Your task to perform on an android device: delete location history Image 0: 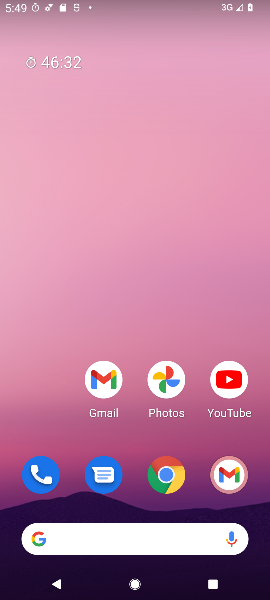
Step 0: press home button
Your task to perform on an android device: delete location history Image 1: 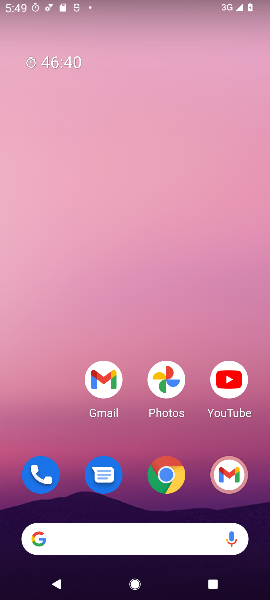
Step 1: drag from (70, 440) to (76, 173)
Your task to perform on an android device: delete location history Image 2: 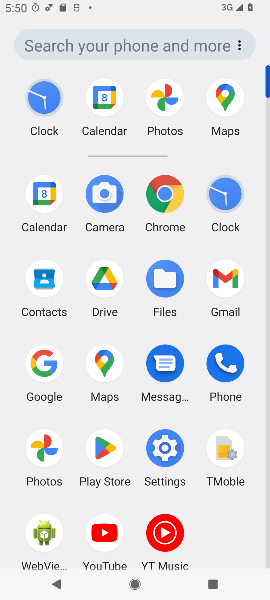
Step 2: click (162, 452)
Your task to perform on an android device: delete location history Image 3: 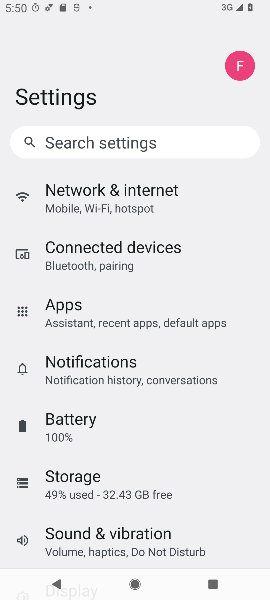
Step 3: press back button
Your task to perform on an android device: delete location history Image 4: 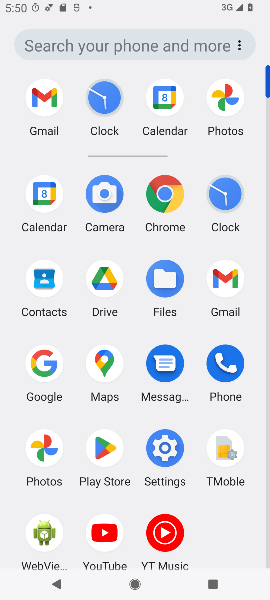
Step 4: click (104, 367)
Your task to perform on an android device: delete location history Image 5: 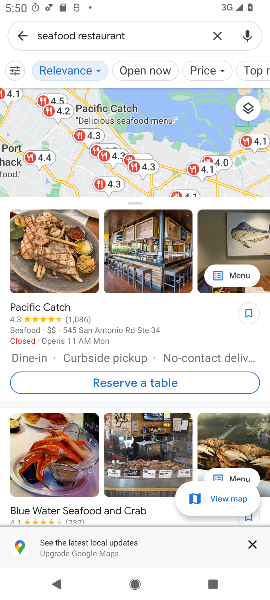
Step 5: press back button
Your task to perform on an android device: delete location history Image 6: 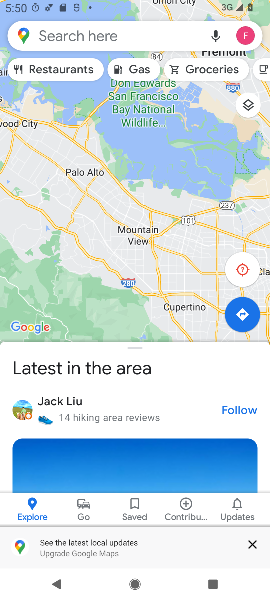
Step 6: click (245, 35)
Your task to perform on an android device: delete location history Image 7: 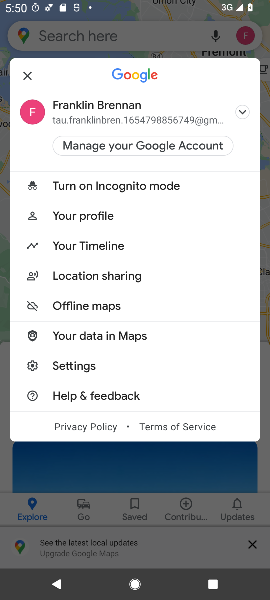
Step 7: click (104, 248)
Your task to perform on an android device: delete location history Image 8: 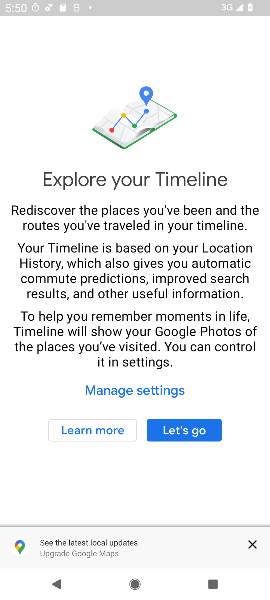
Step 8: click (170, 426)
Your task to perform on an android device: delete location history Image 9: 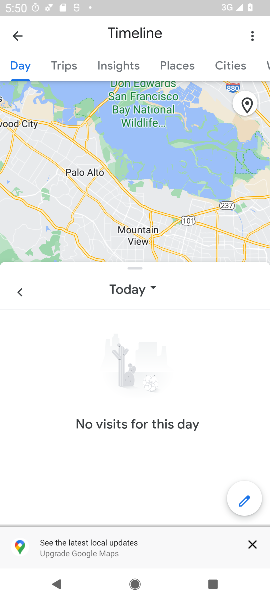
Step 9: click (253, 38)
Your task to perform on an android device: delete location history Image 10: 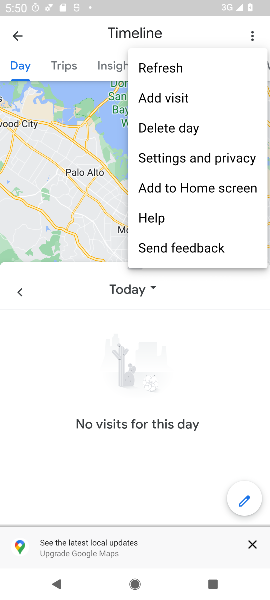
Step 10: click (219, 153)
Your task to perform on an android device: delete location history Image 11: 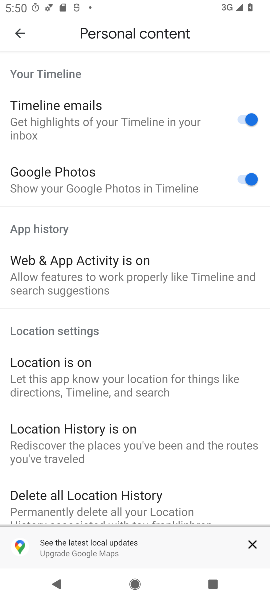
Step 11: drag from (195, 390) to (202, 324)
Your task to perform on an android device: delete location history Image 12: 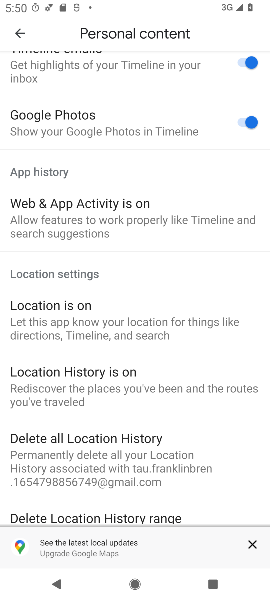
Step 12: drag from (195, 436) to (205, 343)
Your task to perform on an android device: delete location history Image 13: 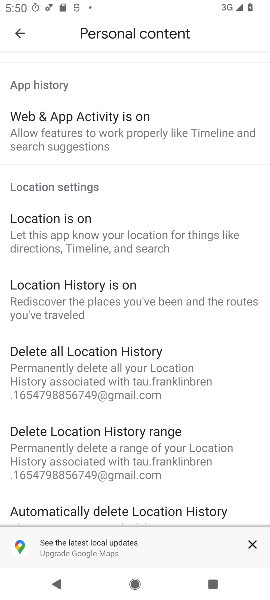
Step 13: click (137, 383)
Your task to perform on an android device: delete location history Image 14: 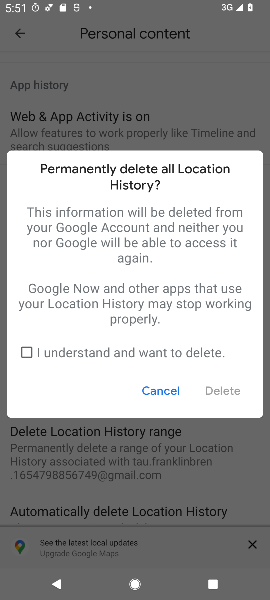
Step 14: click (27, 349)
Your task to perform on an android device: delete location history Image 15: 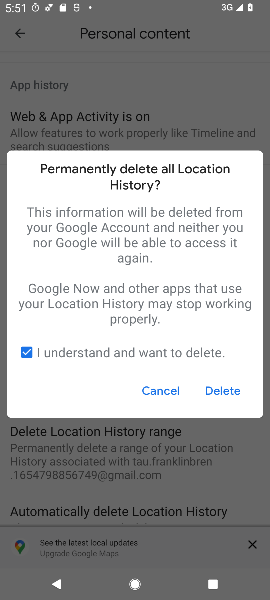
Step 15: click (237, 389)
Your task to perform on an android device: delete location history Image 16: 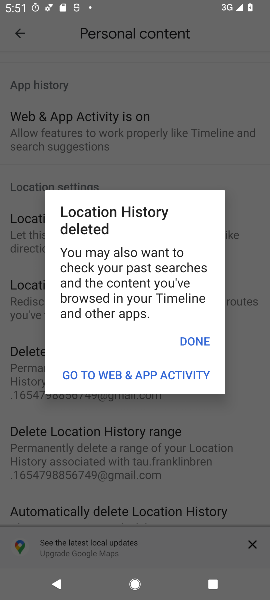
Step 16: click (211, 338)
Your task to perform on an android device: delete location history Image 17: 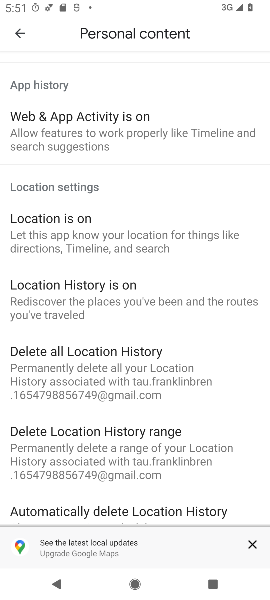
Step 17: task complete